Your task to perform on an android device: Open display settings Image 0: 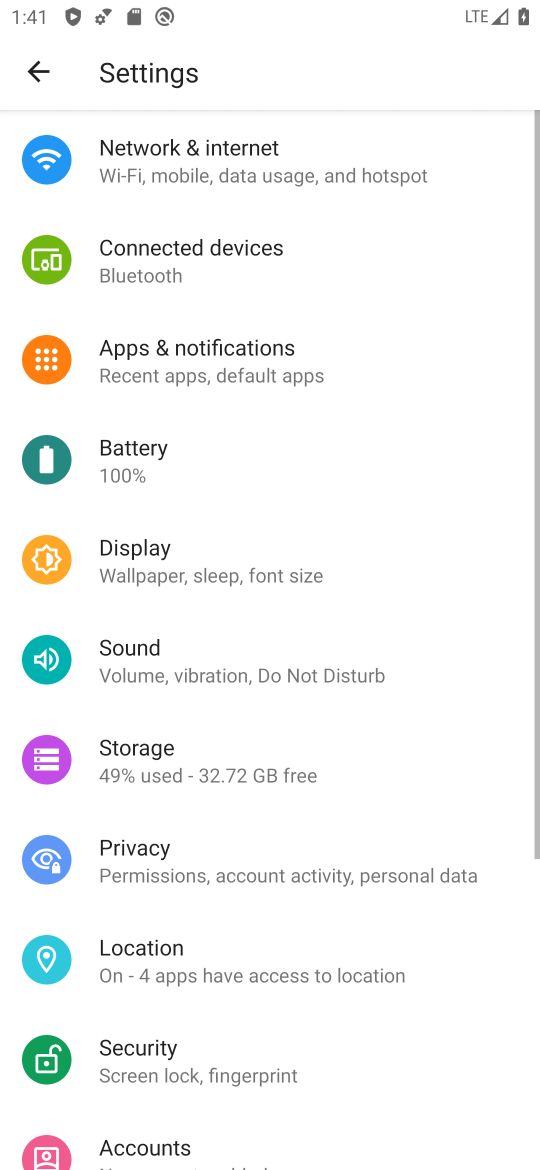
Step 0: click (151, 583)
Your task to perform on an android device: Open display settings Image 1: 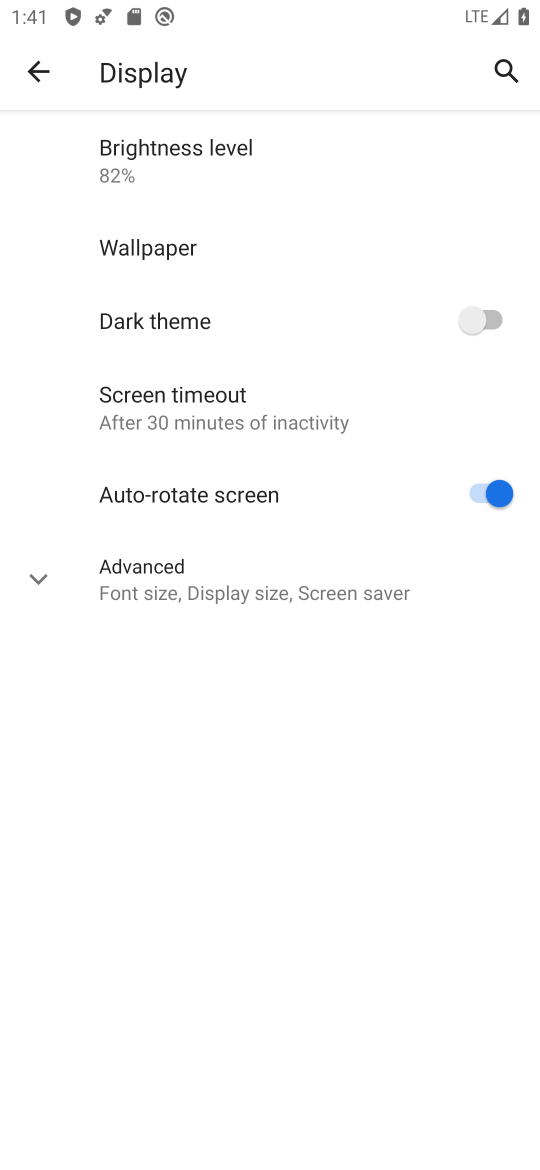
Step 1: task complete